Your task to perform on an android device: turn on translation in the chrome app Image 0: 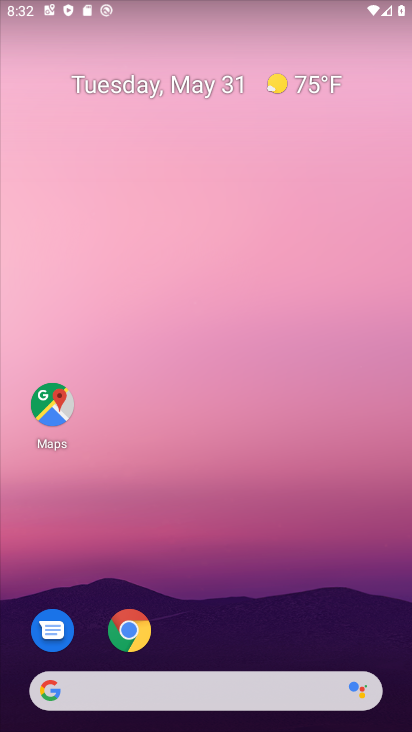
Step 0: drag from (143, 587) to (171, 190)
Your task to perform on an android device: turn on translation in the chrome app Image 1: 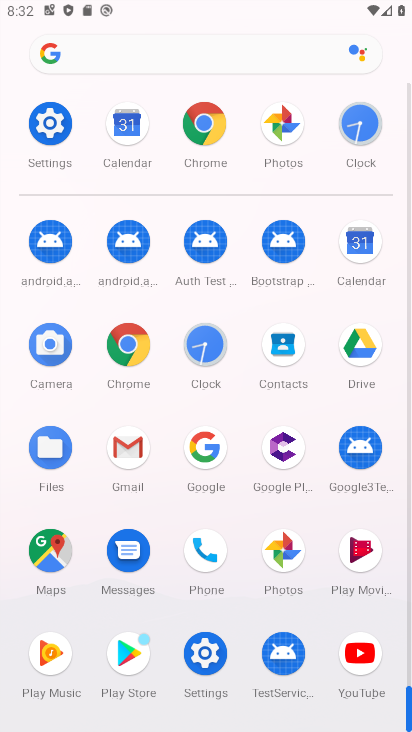
Step 1: click (220, 138)
Your task to perform on an android device: turn on translation in the chrome app Image 2: 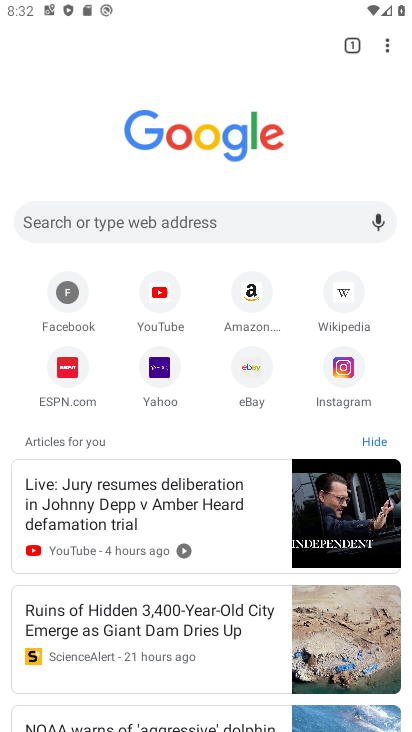
Step 2: click (384, 48)
Your task to perform on an android device: turn on translation in the chrome app Image 3: 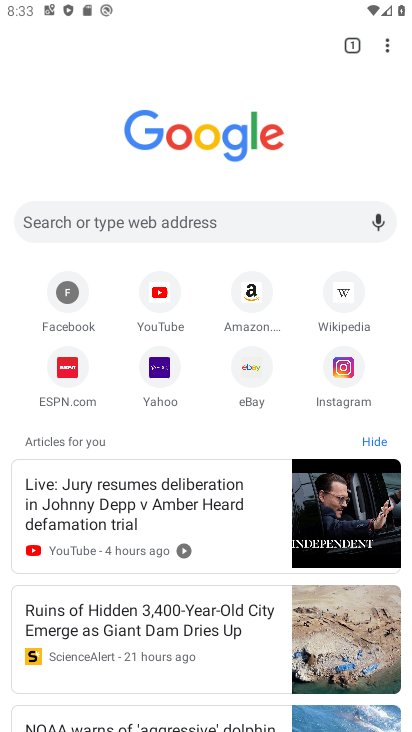
Step 3: task complete